Your task to perform on an android device: Search for sushi restaurants on Maps Image 0: 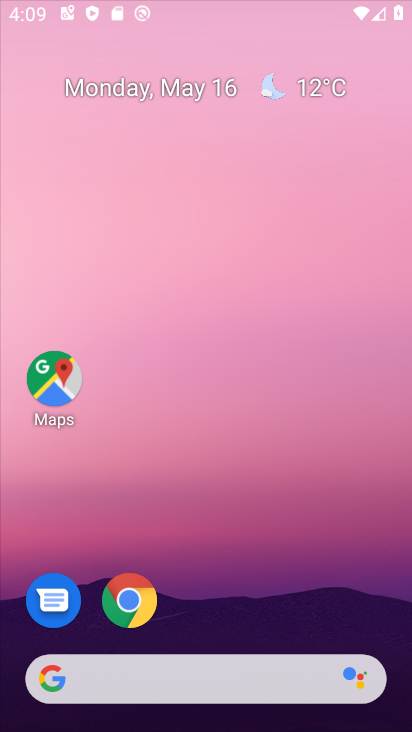
Step 0: drag from (152, 649) to (220, 181)
Your task to perform on an android device: Search for sushi restaurants on Maps Image 1: 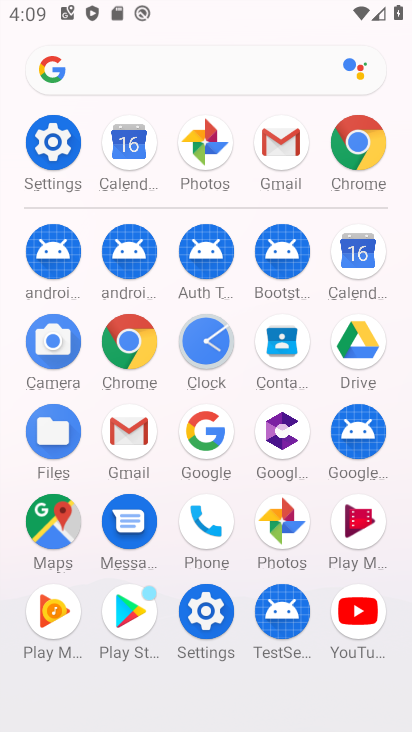
Step 1: click (37, 523)
Your task to perform on an android device: Search for sushi restaurants on Maps Image 2: 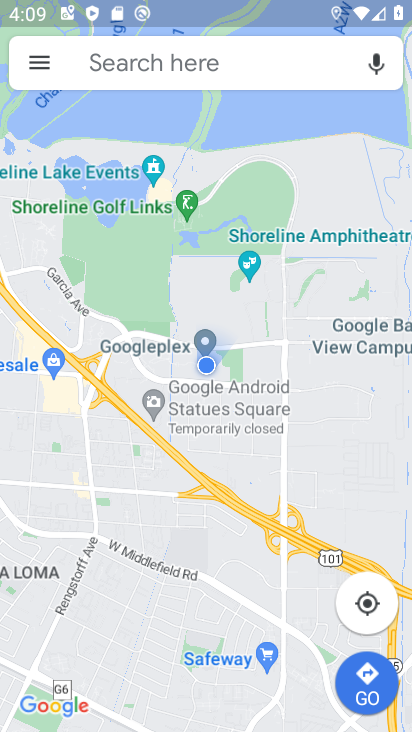
Step 2: click (140, 68)
Your task to perform on an android device: Search for sushi restaurants on Maps Image 3: 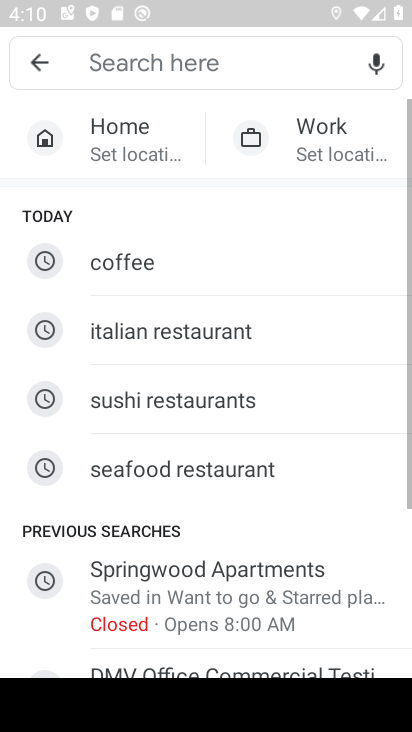
Step 3: click (165, 405)
Your task to perform on an android device: Search for sushi restaurants on Maps Image 4: 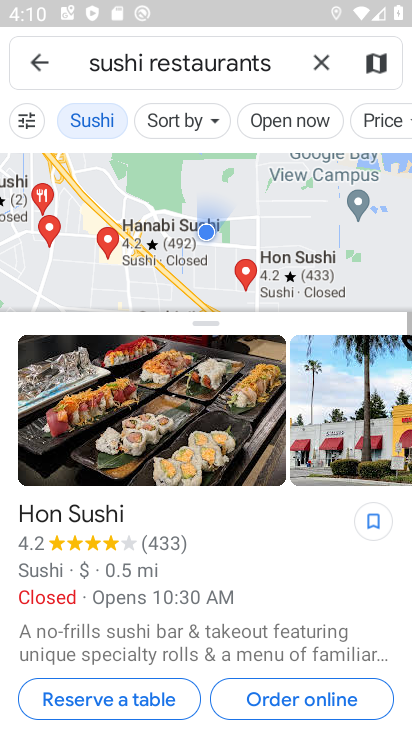
Step 4: task complete